Your task to perform on an android device: snooze an email in the gmail app Image 0: 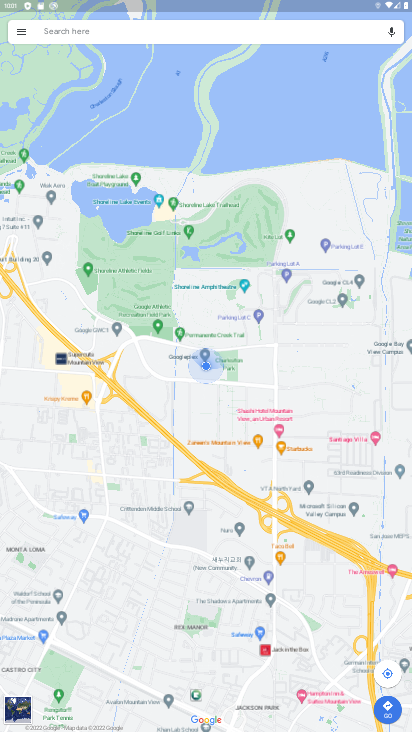
Step 0: press home button
Your task to perform on an android device: snooze an email in the gmail app Image 1: 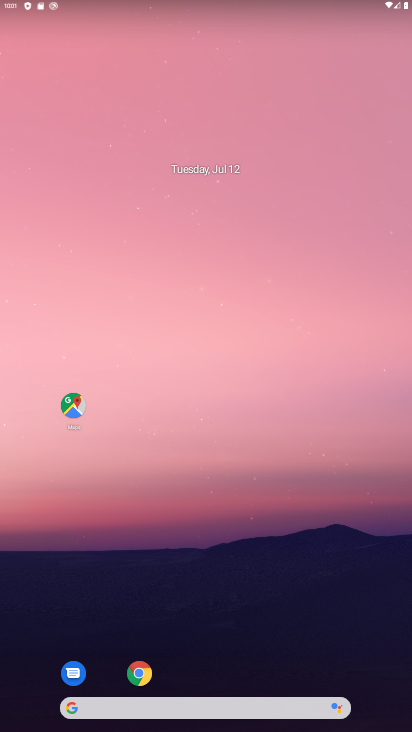
Step 1: drag from (278, 582) to (247, 4)
Your task to perform on an android device: snooze an email in the gmail app Image 2: 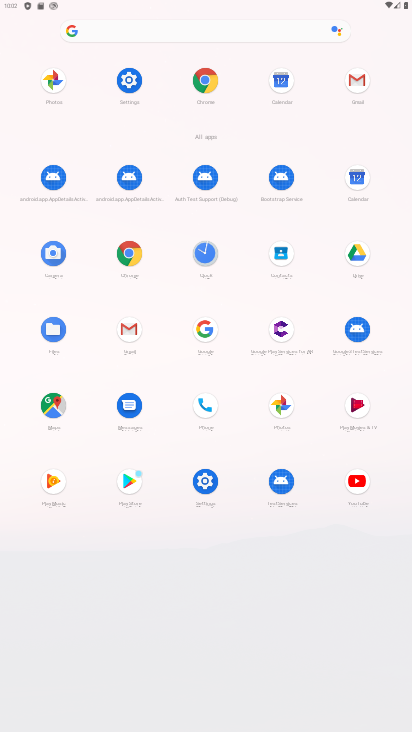
Step 2: click (362, 75)
Your task to perform on an android device: snooze an email in the gmail app Image 3: 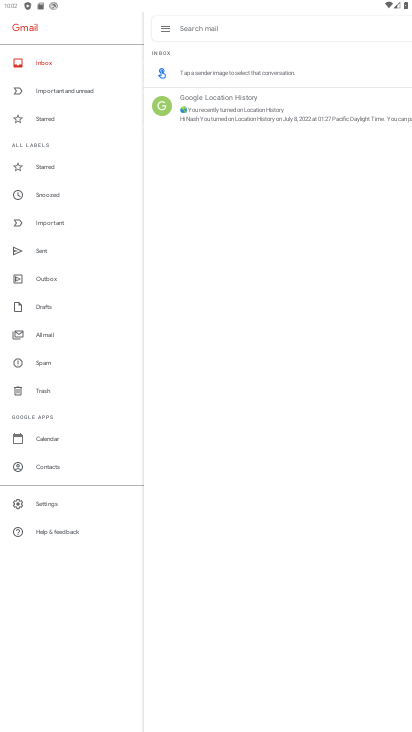
Step 3: click (40, 336)
Your task to perform on an android device: snooze an email in the gmail app Image 4: 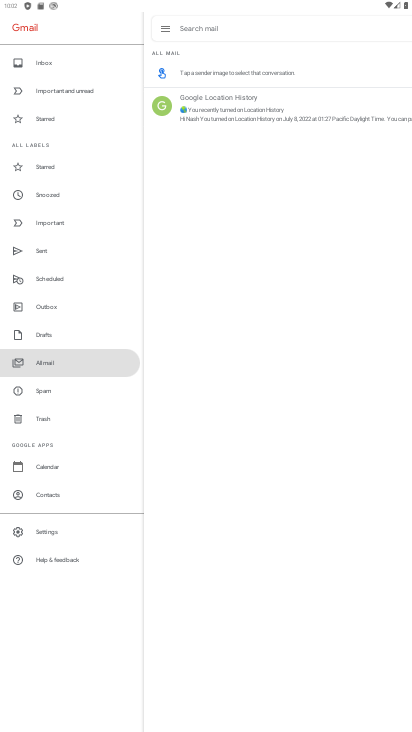
Step 4: click (271, 99)
Your task to perform on an android device: snooze an email in the gmail app Image 5: 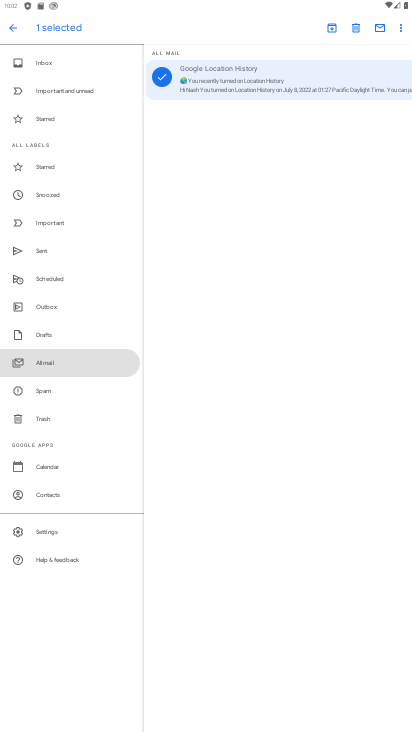
Step 5: click (402, 22)
Your task to perform on an android device: snooze an email in the gmail app Image 6: 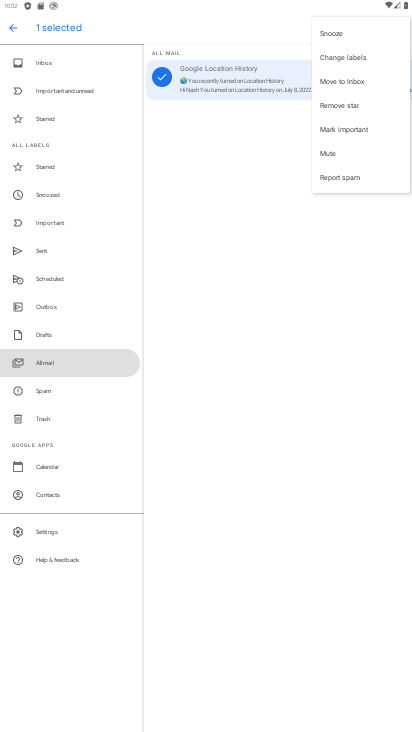
Step 6: click (345, 36)
Your task to perform on an android device: snooze an email in the gmail app Image 7: 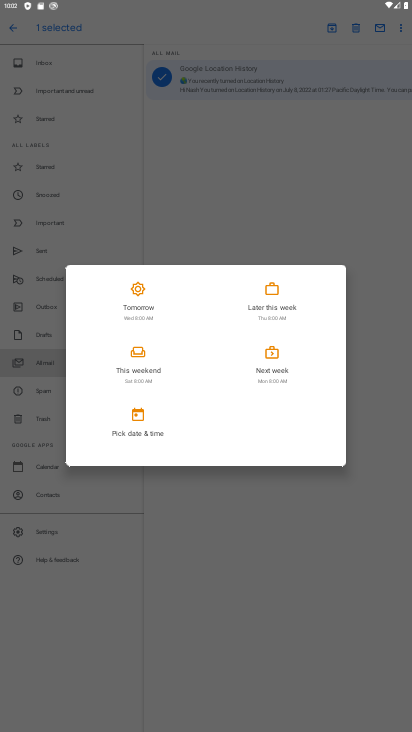
Step 7: click (147, 312)
Your task to perform on an android device: snooze an email in the gmail app Image 8: 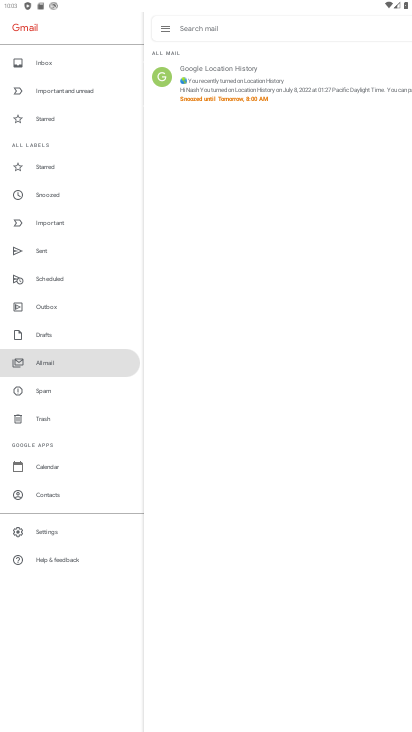
Step 8: task complete